Your task to perform on an android device: open app "NewsBreak: Local News & Alerts" (install if not already installed) Image 0: 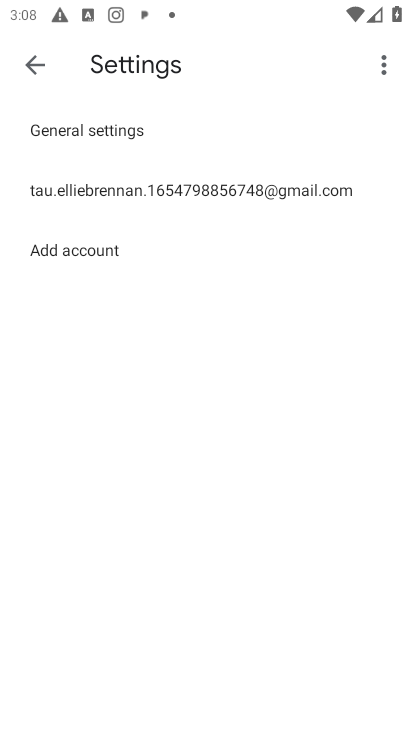
Step 0: press home button
Your task to perform on an android device: open app "NewsBreak: Local News & Alerts" (install if not already installed) Image 1: 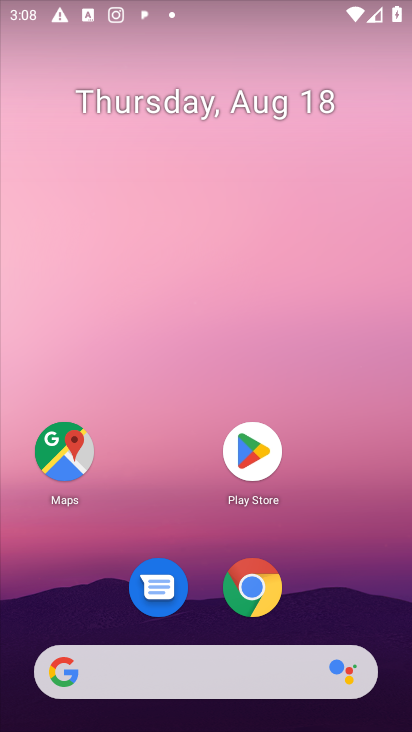
Step 1: click (254, 443)
Your task to perform on an android device: open app "NewsBreak: Local News & Alerts" (install if not already installed) Image 2: 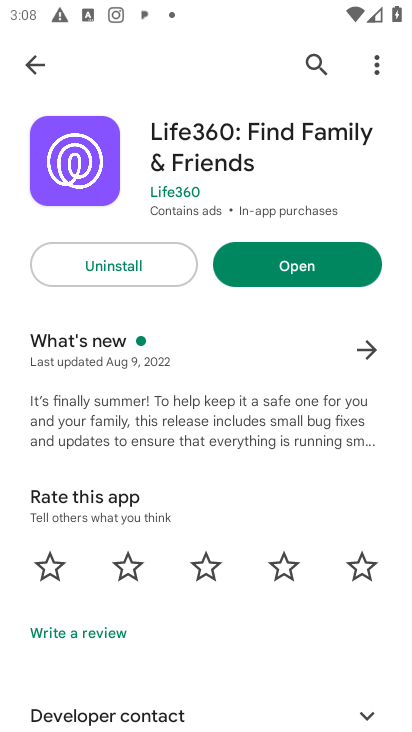
Step 2: click (309, 65)
Your task to perform on an android device: open app "NewsBreak: Local News & Alerts" (install if not already installed) Image 3: 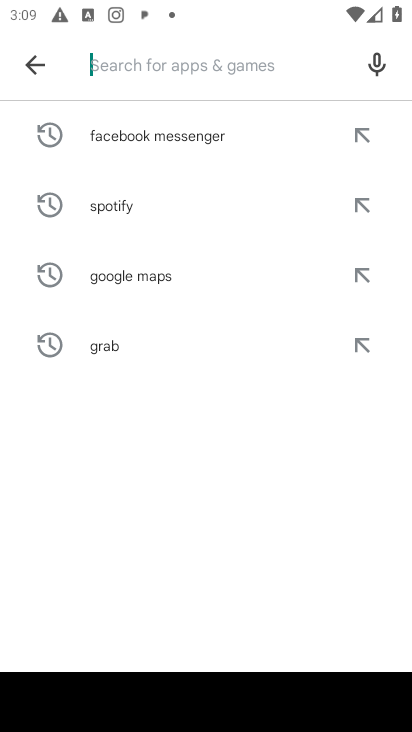
Step 3: type "NewsBreak: Local News & Alerts"
Your task to perform on an android device: open app "NewsBreak: Local News & Alerts" (install if not already installed) Image 4: 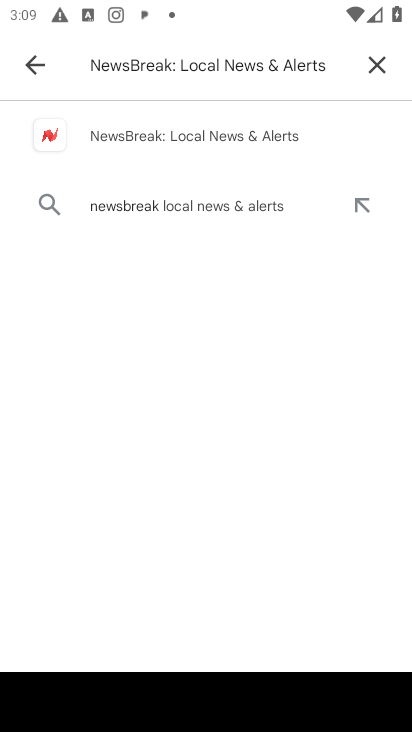
Step 4: click (242, 134)
Your task to perform on an android device: open app "NewsBreak: Local News & Alerts" (install if not already installed) Image 5: 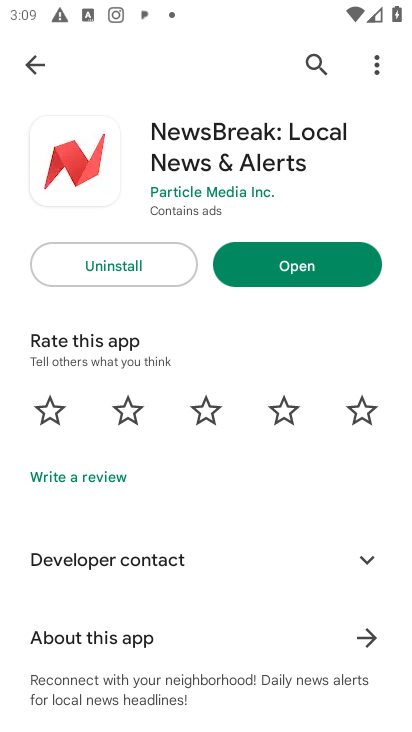
Step 5: click (297, 263)
Your task to perform on an android device: open app "NewsBreak: Local News & Alerts" (install if not already installed) Image 6: 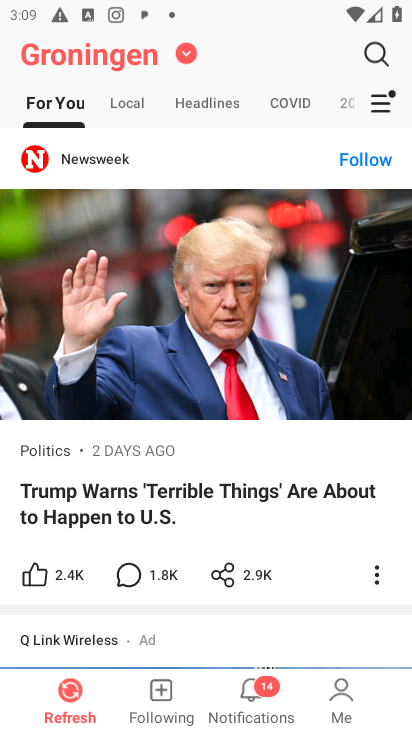
Step 6: task complete